Your task to perform on an android device: change keyboard looks Image 0: 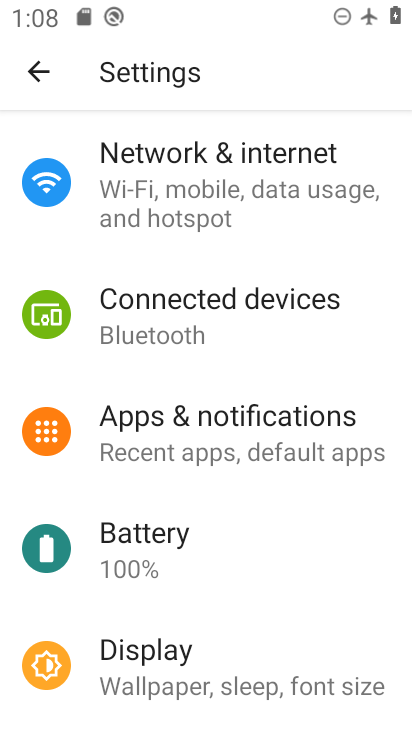
Step 0: drag from (221, 553) to (307, 2)
Your task to perform on an android device: change keyboard looks Image 1: 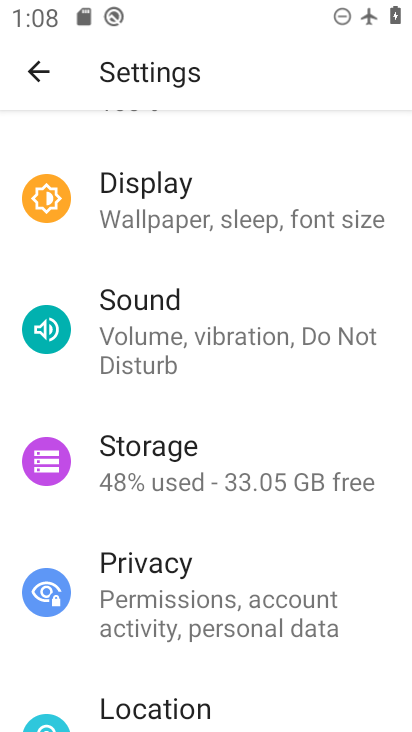
Step 1: drag from (158, 635) to (237, 155)
Your task to perform on an android device: change keyboard looks Image 2: 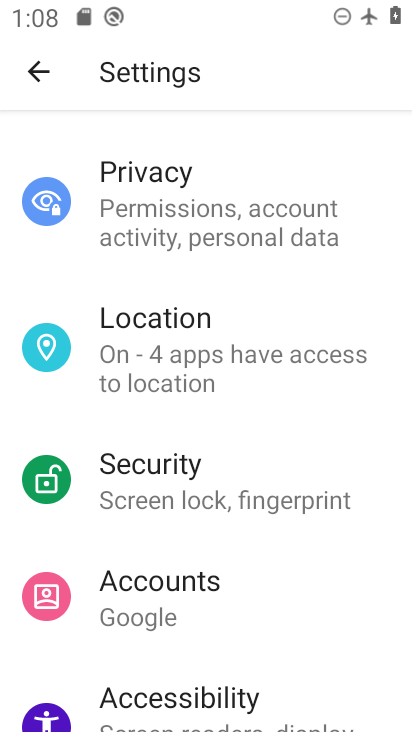
Step 2: drag from (170, 582) to (242, 187)
Your task to perform on an android device: change keyboard looks Image 3: 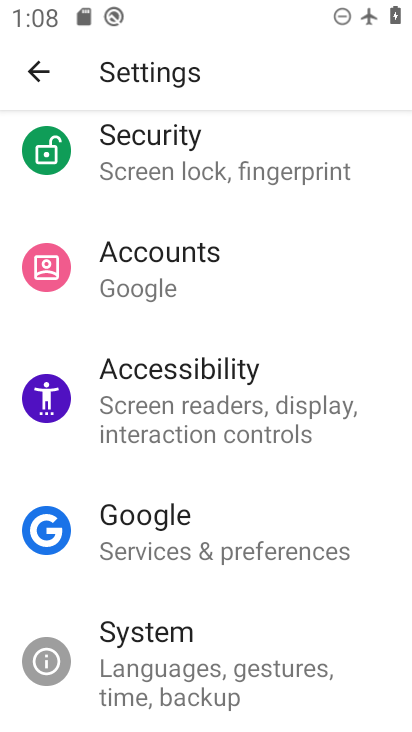
Step 3: click (149, 637)
Your task to perform on an android device: change keyboard looks Image 4: 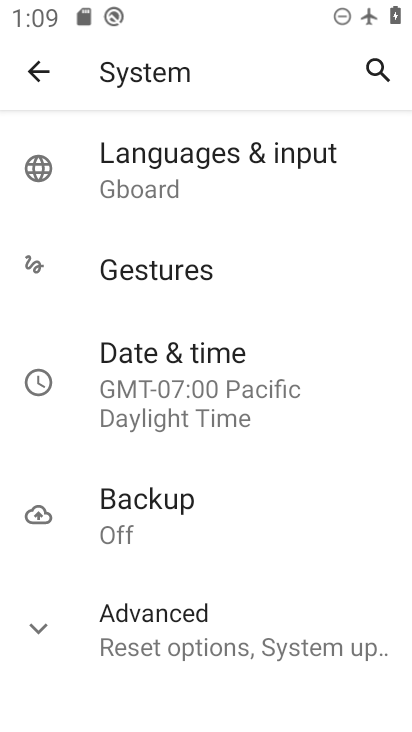
Step 4: click (173, 181)
Your task to perform on an android device: change keyboard looks Image 5: 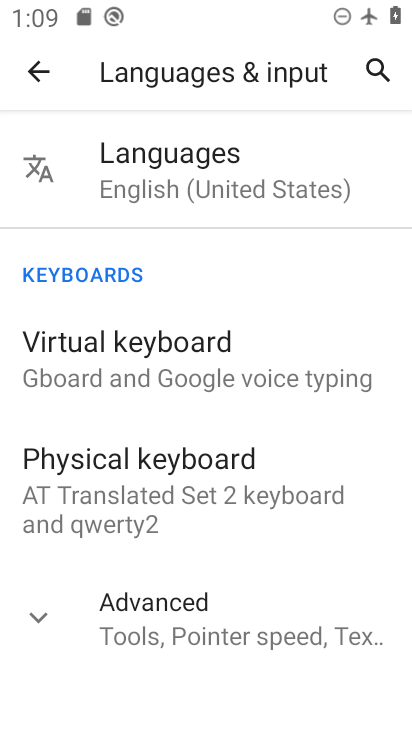
Step 5: click (143, 350)
Your task to perform on an android device: change keyboard looks Image 6: 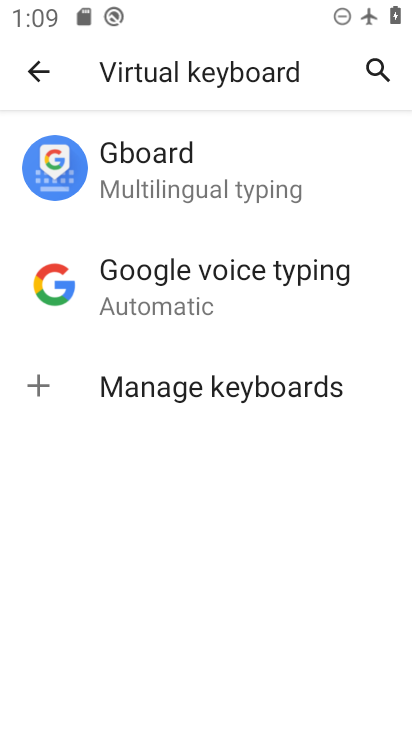
Step 6: click (196, 183)
Your task to perform on an android device: change keyboard looks Image 7: 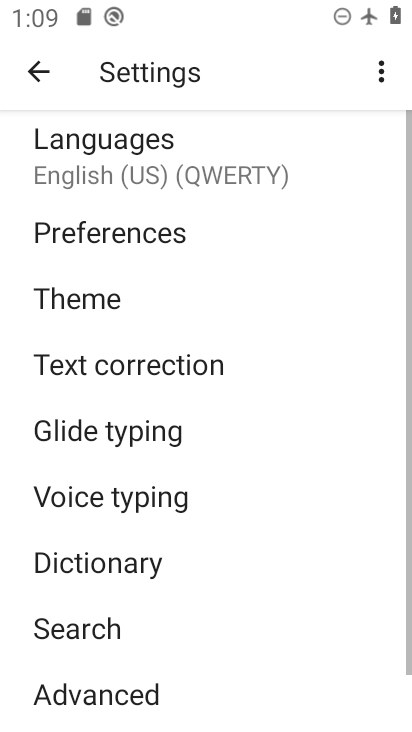
Step 7: click (94, 289)
Your task to perform on an android device: change keyboard looks Image 8: 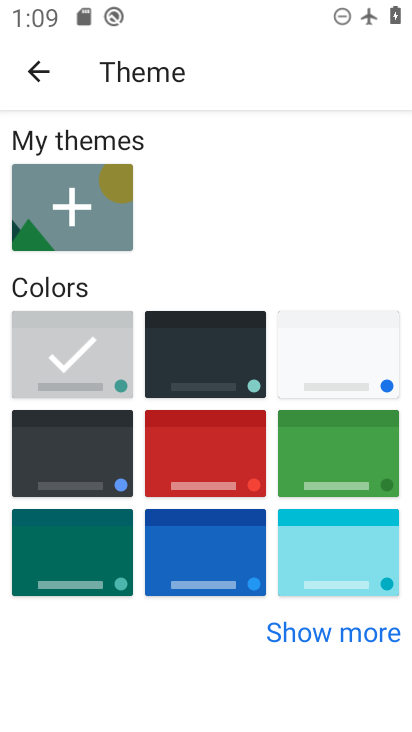
Step 8: click (185, 444)
Your task to perform on an android device: change keyboard looks Image 9: 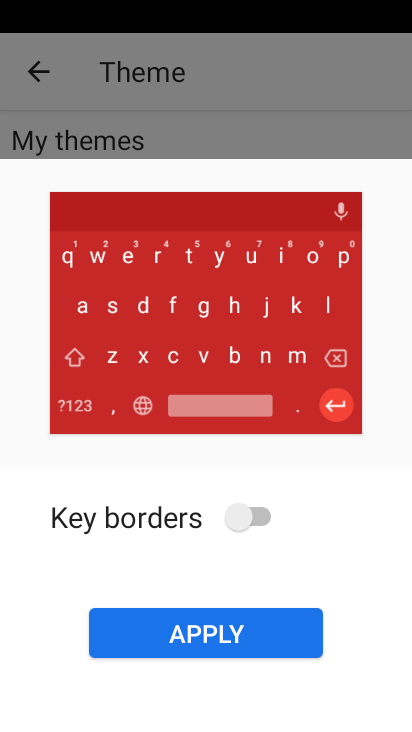
Step 9: click (203, 637)
Your task to perform on an android device: change keyboard looks Image 10: 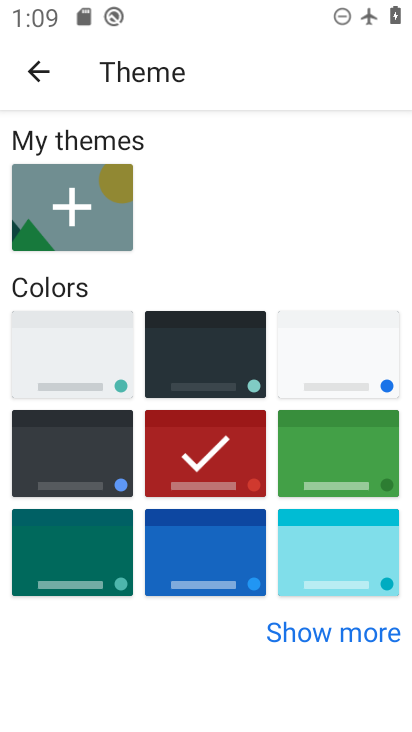
Step 10: task complete